Your task to perform on an android device: What is the recent news? Image 0: 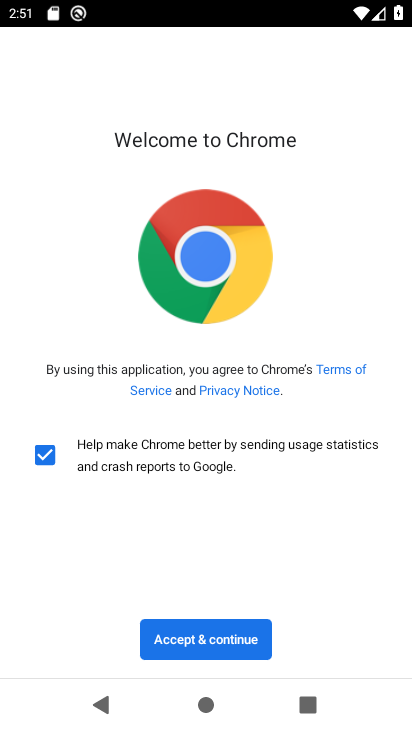
Step 0: click (222, 625)
Your task to perform on an android device: What is the recent news? Image 1: 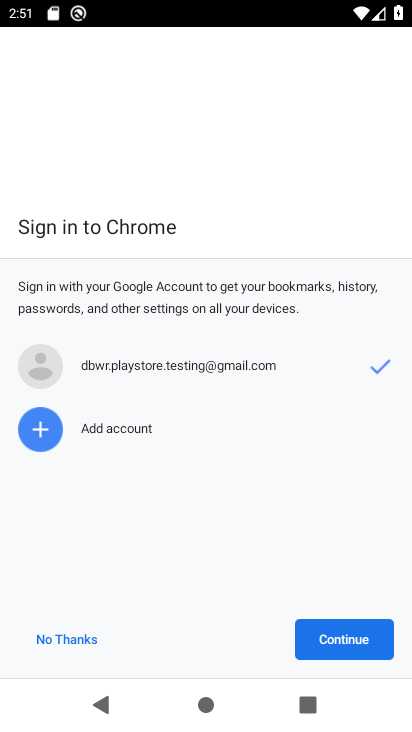
Step 1: click (351, 640)
Your task to perform on an android device: What is the recent news? Image 2: 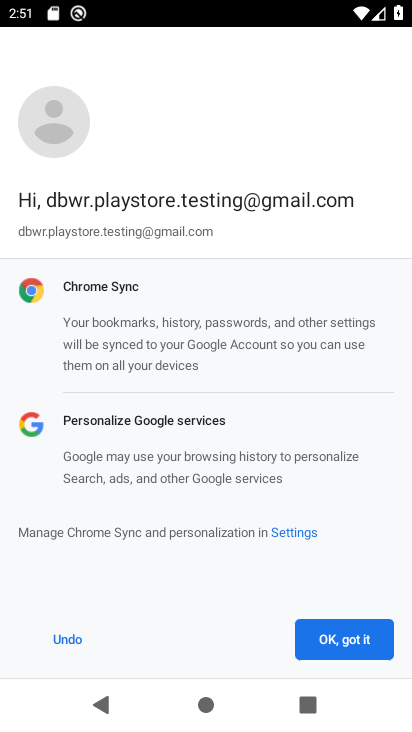
Step 2: click (352, 637)
Your task to perform on an android device: What is the recent news? Image 3: 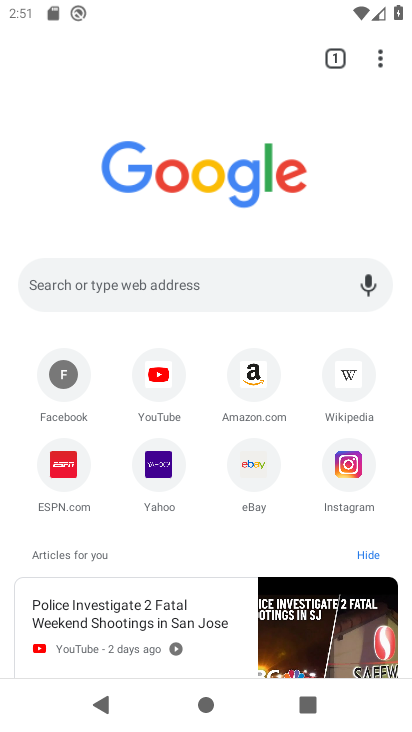
Step 3: click (160, 280)
Your task to perform on an android device: What is the recent news? Image 4: 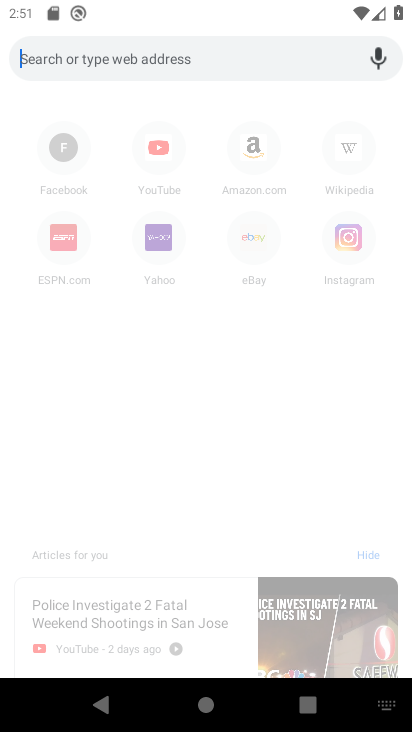
Step 4: type "What is the recent news?"
Your task to perform on an android device: What is the recent news? Image 5: 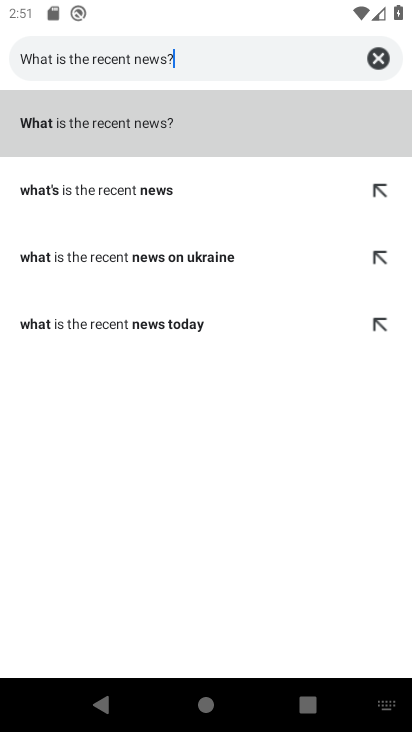
Step 5: type ""
Your task to perform on an android device: What is the recent news? Image 6: 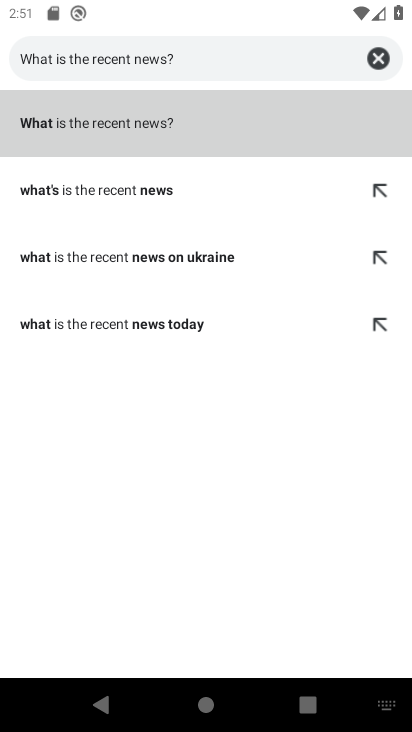
Step 6: click (166, 135)
Your task to perform on an android device: What is the recent news? Image 7: 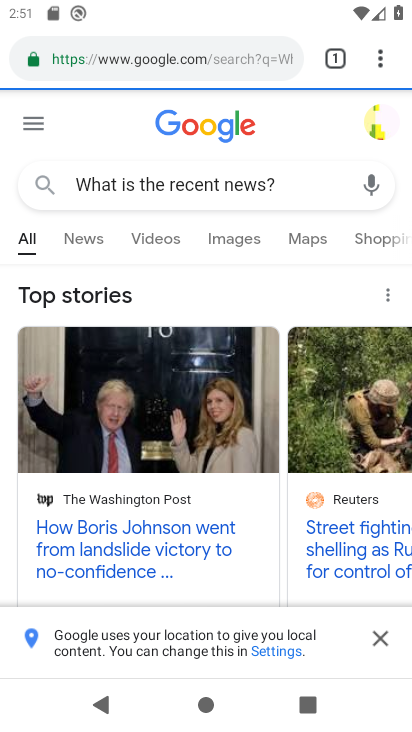
Step 7: task complete